Your task to perform on an android device: Go to Yahoo.com Image 0: 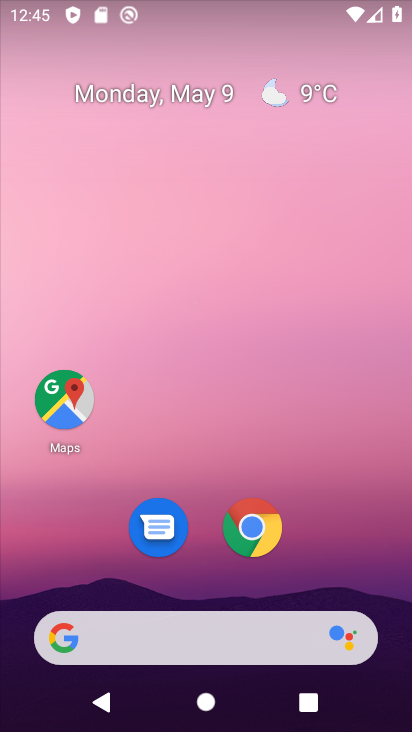
Step 0: click (255, 514)
Your task to perform on an android device: Go to Yahoo.com Image 1: 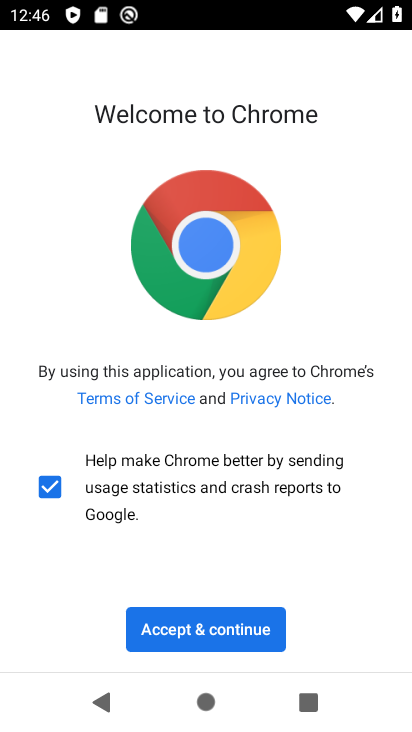
Step 1: click (228, 620)
Your task to perform on an android device: Go to Yahoo.com Image 2: 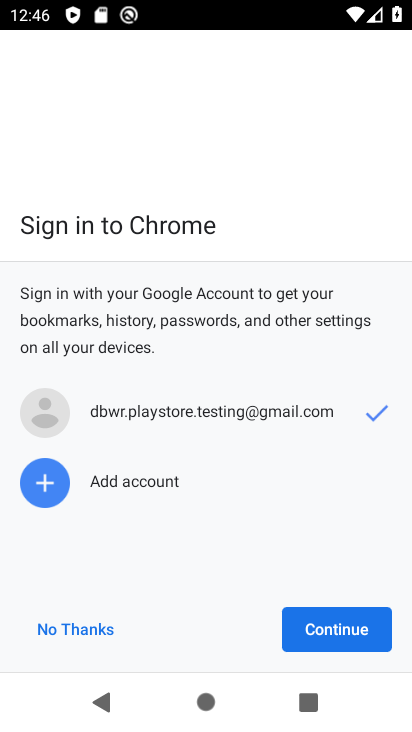
Step 2: click (340, 618)
Your task to perform on an android device: Go to Yahoo.com Image 3: 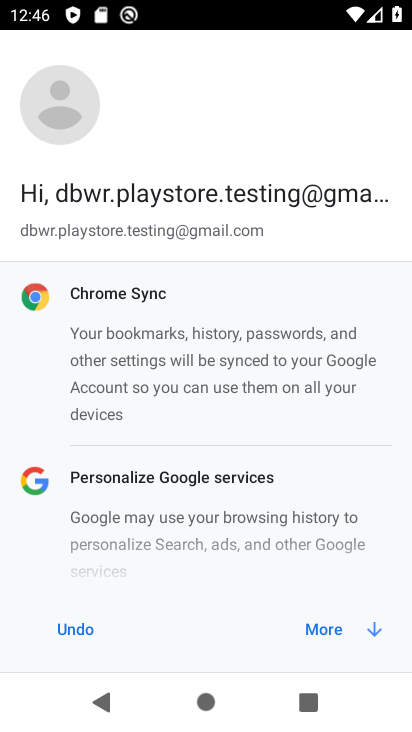
Step 3: click (338, 619)
Your task to perform on an android device: Go to Yahoo.com Image 4: 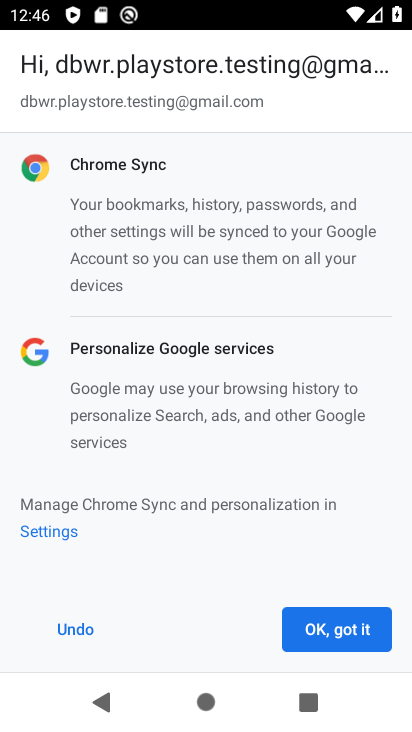
Step 4: click (338, 619)
Your task to perform on an android device: Go to Yahoo.com Image 5: 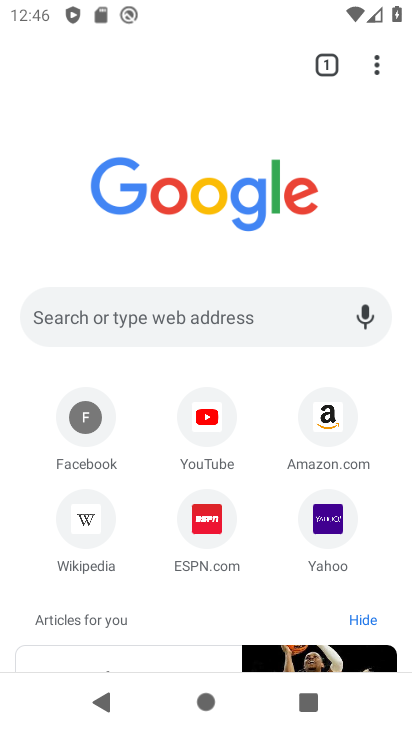
Step 5: click (303, 529)
Your task to perform on an android device: Go to Yahoo.com Image 6: 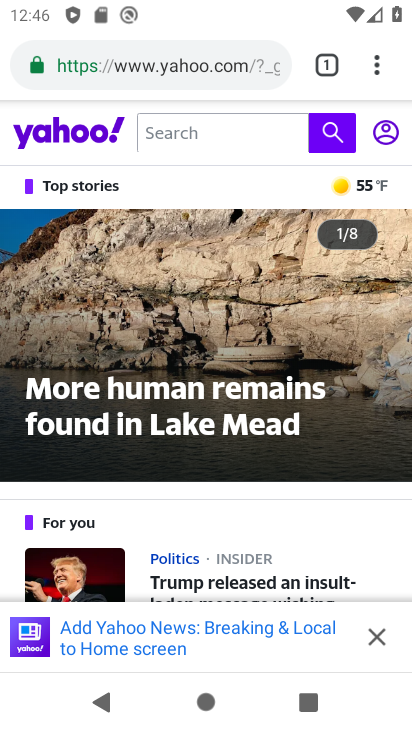
Step 6: task complete